Your task to perform on an android device: Look up the best rated 3d printer on Ali Express Image 0: 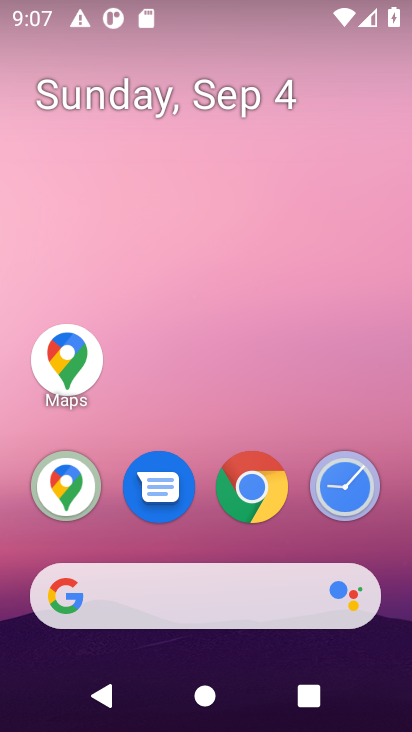
Step 0: task complete